Your task to perform on an android device: Set the phone to "Do not disturb". Image 0: 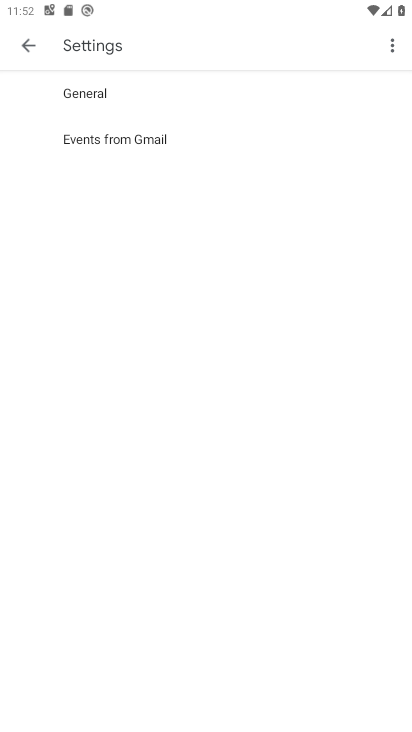
Step 0: press home button
Your task to perform on an android device: Set the phone to "Do not disturb". Image 1: 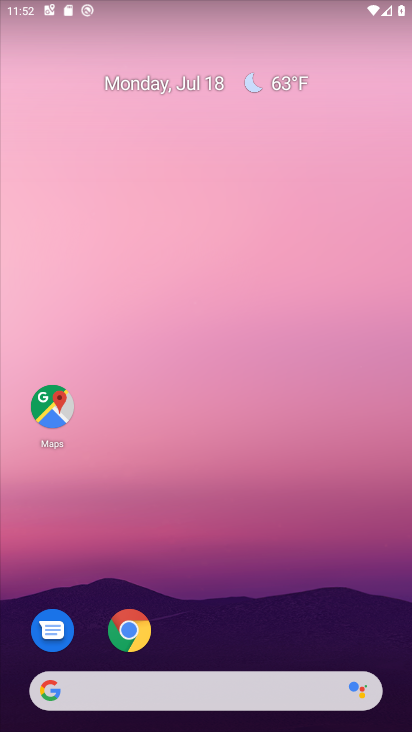
Step 1: drag from (240, 665) to (291, 12)
Your task to perform on an android device: Set the phone to "Do not disturb". Image 2: 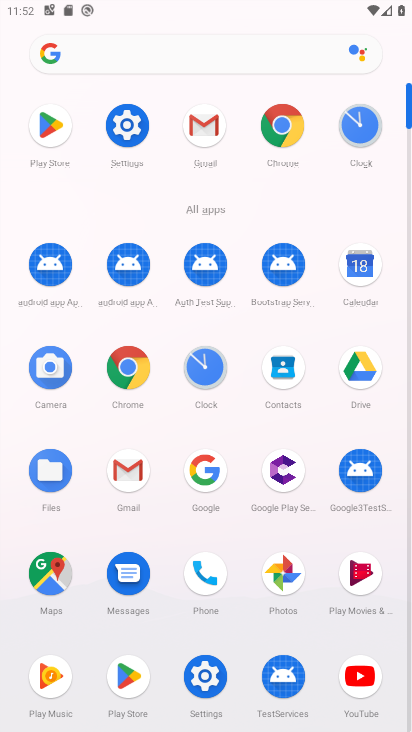
Step 2: click (123, 124)
Your task to perform on an android device: Set the phone to "Do not disturb". Image 3: 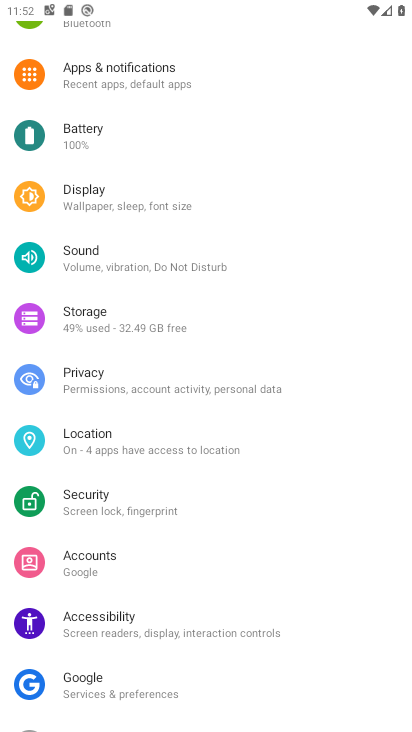
Step 3: click (158, 258)
Your task to perform on an android device: Set the phone to "Do not disturb". Image 4: 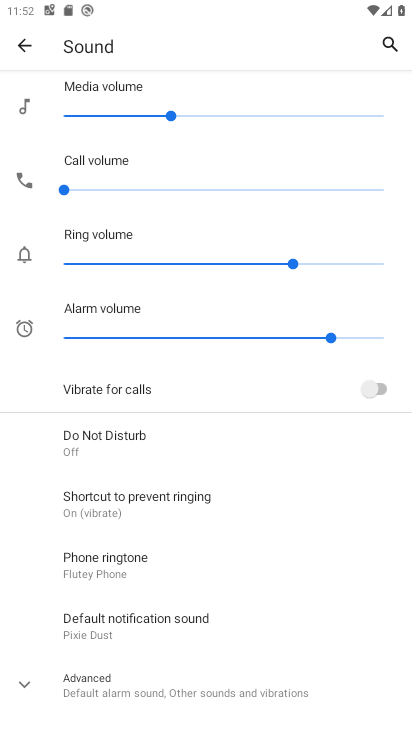
Step 4: click (117, 430)
Your task to perform on an android device: Set the phone to "Do not disturb". Image 5: 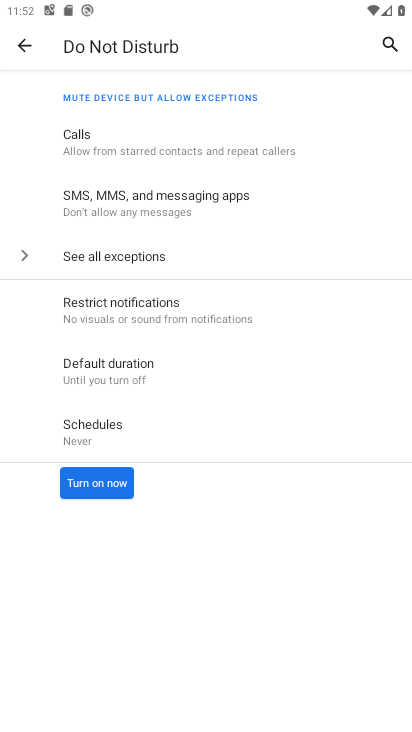
Step 5: click (104, 481)
Your task to perform on an android device: Set the phone to "Do not disturb". Image 6: 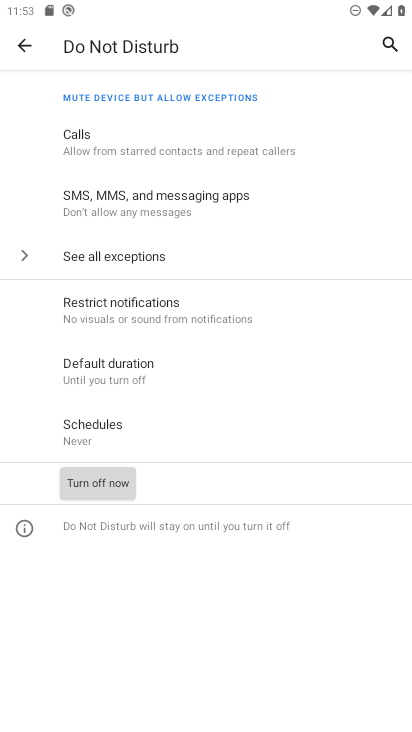
Step 6: task complete